Your task to perform on an android device: allow notifications from all sites in the chrome app Image 0: 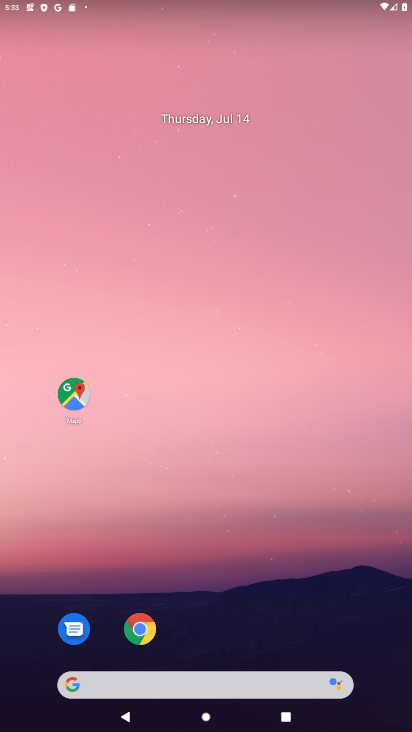
Step 0: drag from (227, 674) to (251, 104)
Your task to perform on an android device: allow notifications from all sites in the chrome app Image 1: 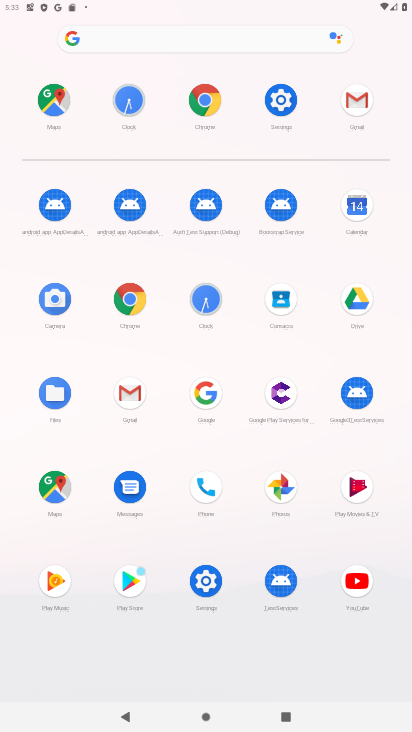
Step 1: click (128, 288)
Your task to perform on an android device: allow notifications from all sites in the chrome app Image 2: 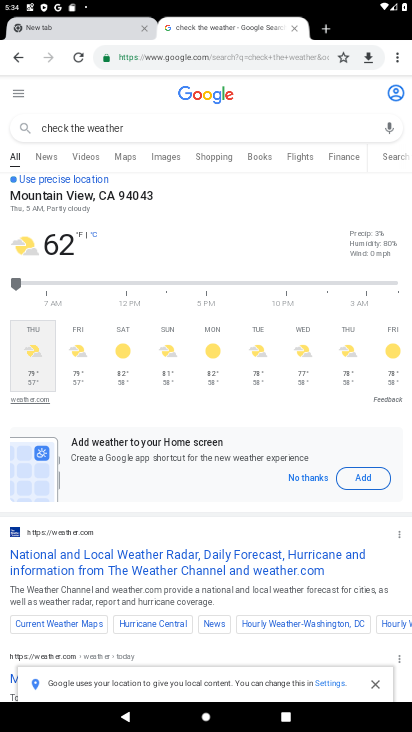
Step 2: drag from (392, 50) to (308, 298)
Your task to perform on an android device: allow notifications from all sites in the chrome app Image 3: 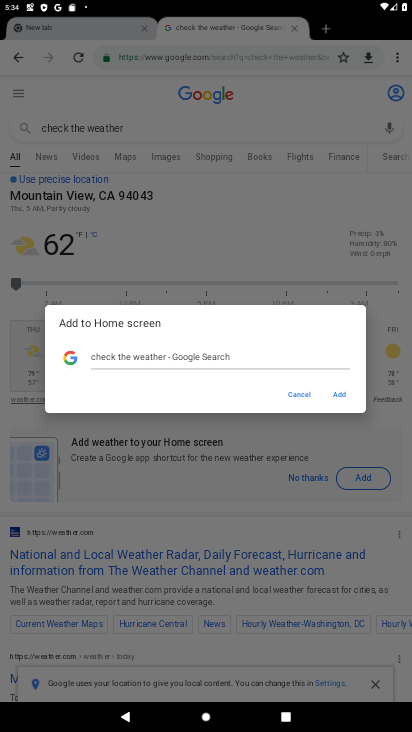
Step 3: click (287, 349)
Your task to perform on an android device: allow notifications from all sites in the chrome app Image 4: 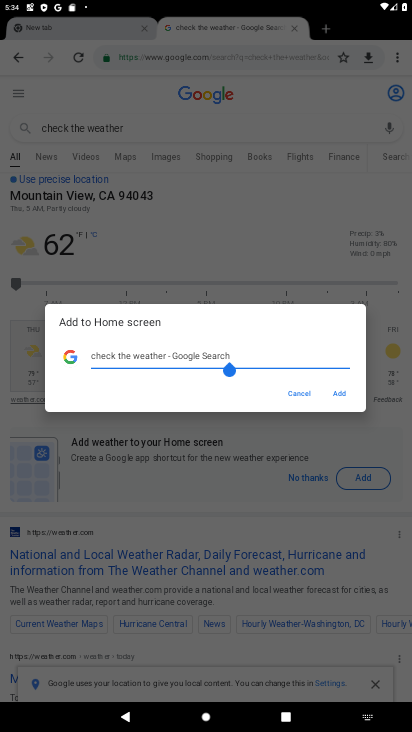
Step 4: click (304, 392)
Your task to perform on an android device: allow notifications from all sites in the chrome app Image 5: 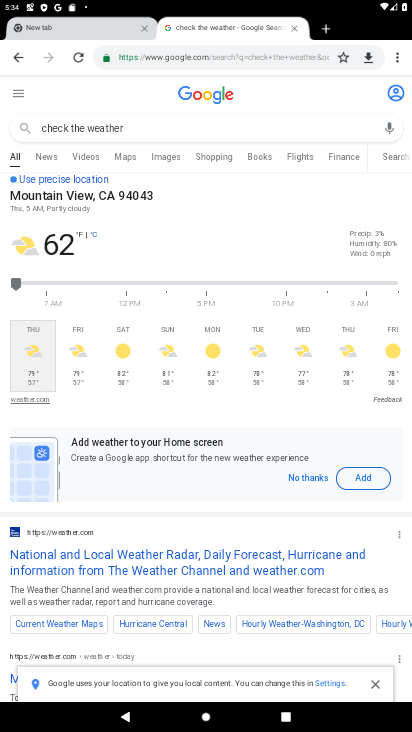
Step 5: drag from (400, 56) to (279, 352)
Your task to perform on an android device: allow notifications from all sites in the chrome app Image 6: 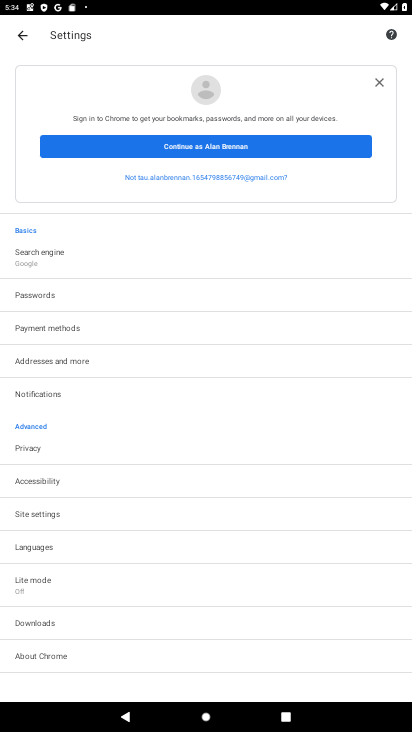
Step 6: click (49, 515)
Your task to perform on an android device: allow notifications from all sites in the chrome app Image 7: 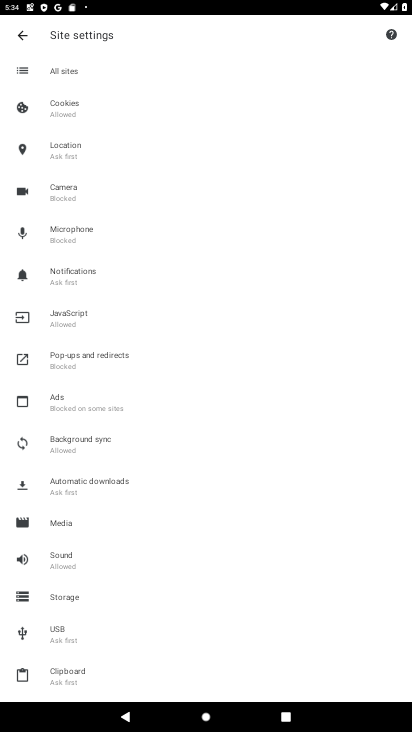
Step 7: click (91, 281)
Your task to perform on an android device: allow notifications from all sites in the chrome app Image 8: 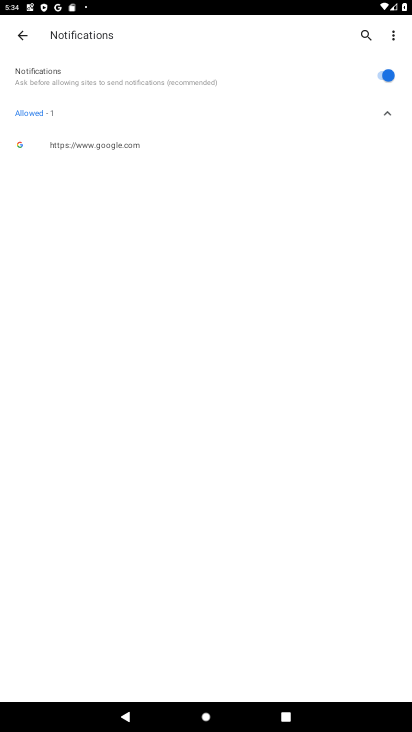
Step 8: task complete